Your task to perform on an android device: Open Wikipedia Image 0: 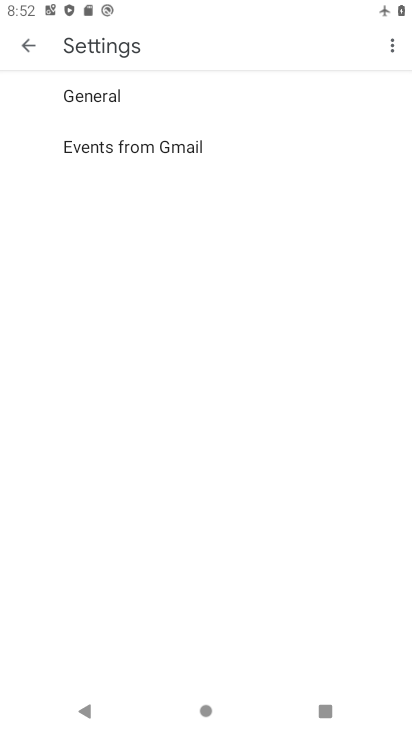
Step 0: press home button
Your task to perform on an android device: Open Wikipedia Image 1: 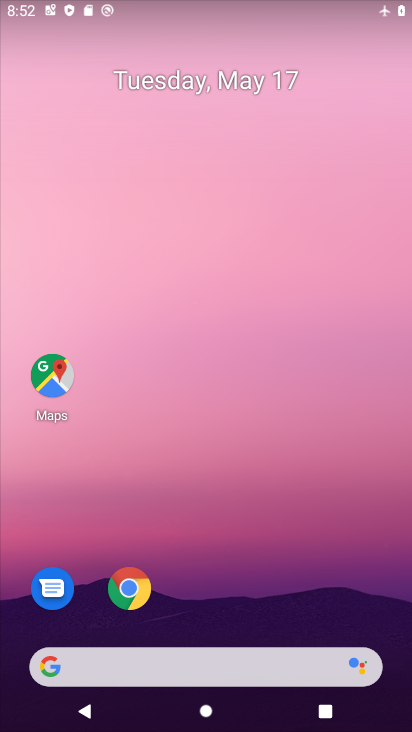
Step 1: drag from (380, 723) to (406, 357)
Your task to perform on an android device: Open Wikipedia Image 2: 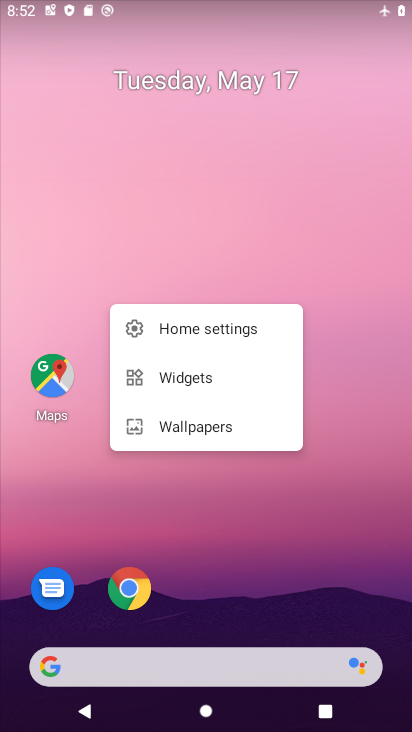
Step 2: drag from (392, 701) to (290, 282)
Your task to perform on an android device: Open Wikipedia Image 3: 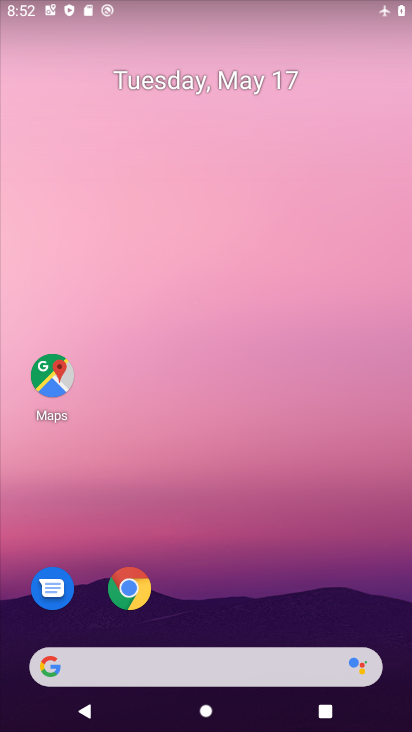
Step 3: drag from (391, 712) to (403, 201)
Your task to perform on an android device: Open Wikipedia Image 4: 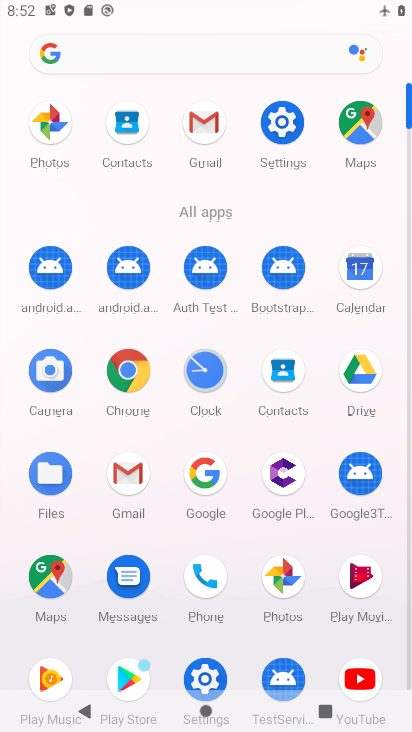
Step 4: drag from (394, 643) to (394, 208)
Your task to perform on an android device: Open Wikipedia Image 5: 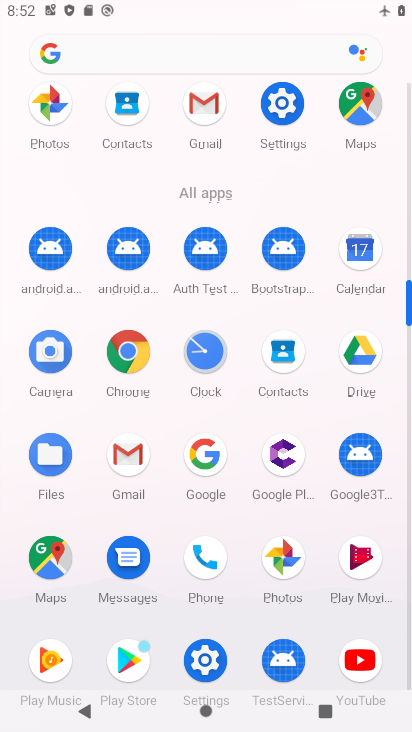
Step 5: click (123, 348)
Your task to perform on an android device: Open Wikipedia Image 6: 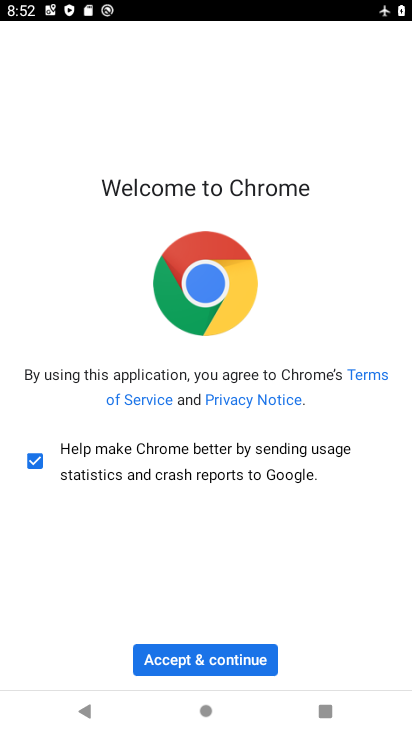
Step 6: click (220, 648)
Your task to perform on an android device: Open Wikipedia Image 7: 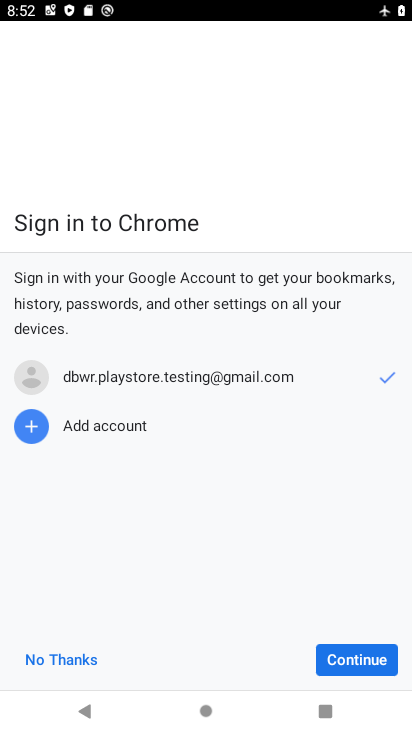
Step 7: click (374, 659)
Your task to perform on an android device: Open Wikipedia Image 8: 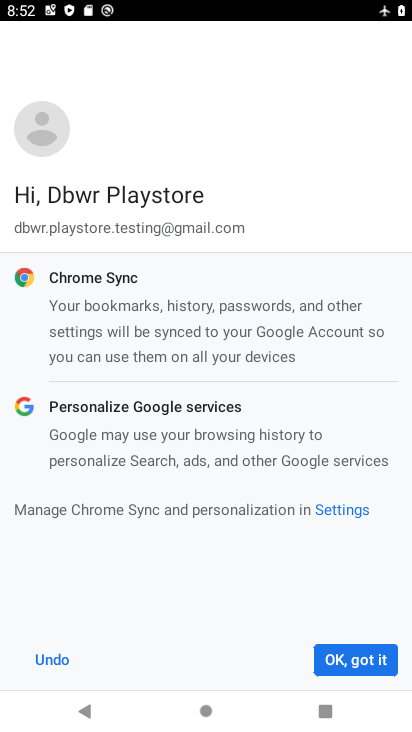
Step 8: click (374, 659)
Your task to perform on an android device: Open Wikipedia Image 9: 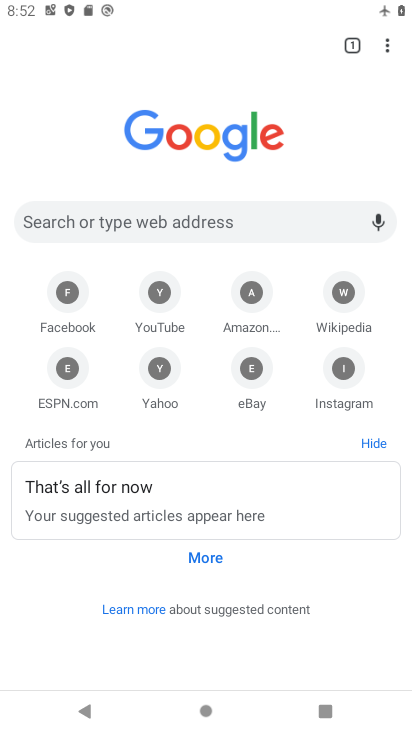
Step 9: click (193, 230)
Your task to perform on an android device: Open Wikipedia Image 10: 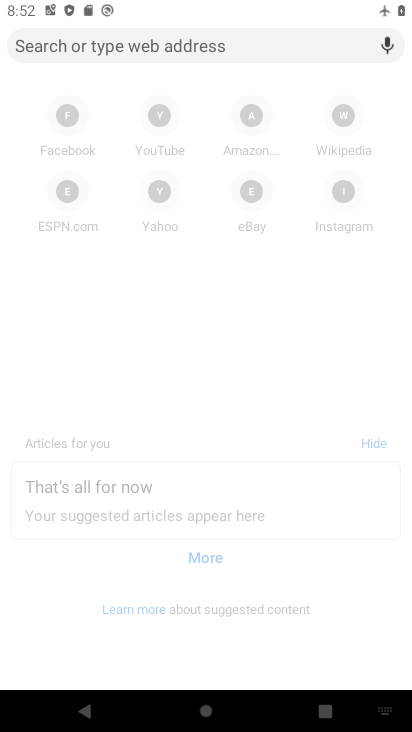
Step 10: type "Wikipedia"
Your task to perform on an android device: Open Wikipedia Image 11: 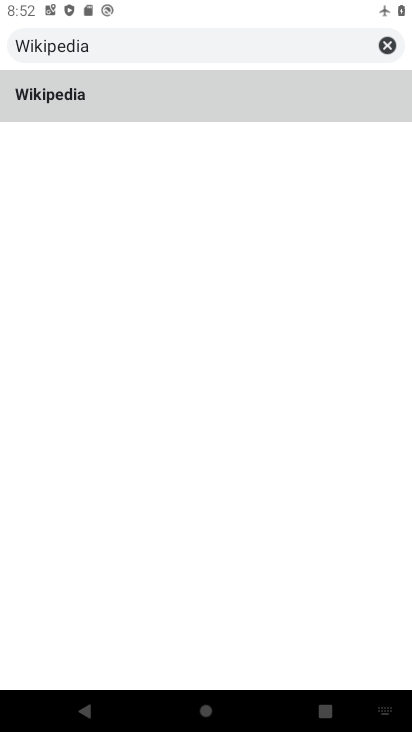
Step 11: click (43, 90)
Your task to perform on an android device: Open Wikipedia Image 12: 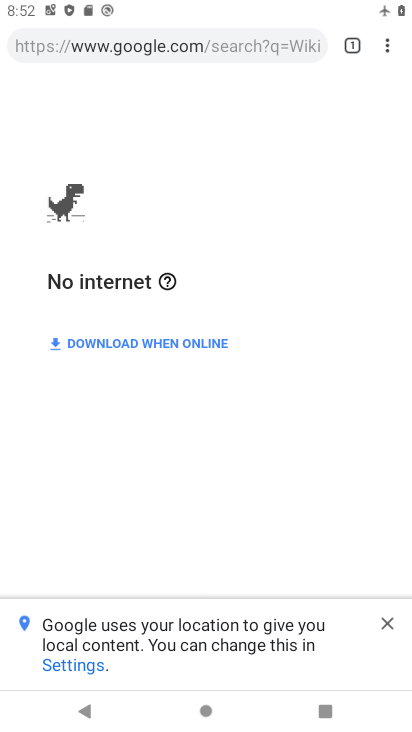
Step 12: task complete